Your task to perform on an android device: turn off picture-in-picture Image 0: 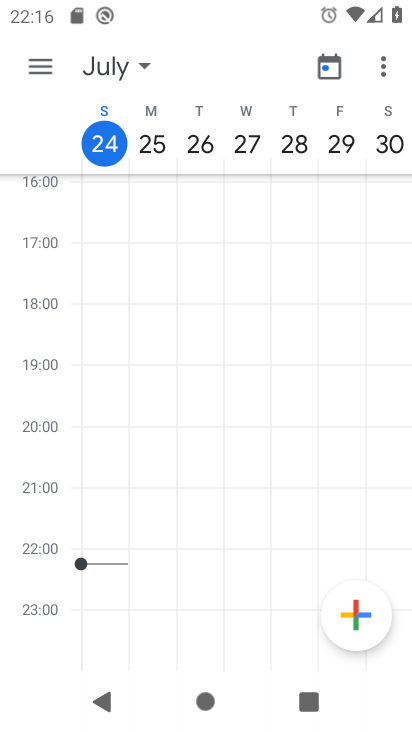
Step 0: press home button
Your task to perform on an android device: turn off picture-in-picture Image 1: 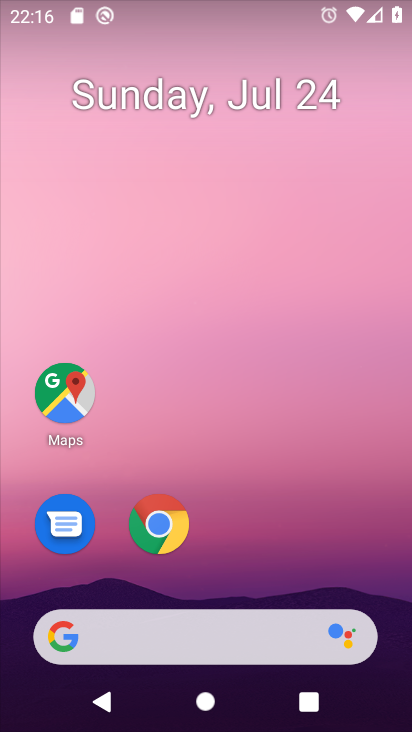
Step 1: click (161, 523)
Your task to perform on an android device: turn off picture-in-picture Image 2: 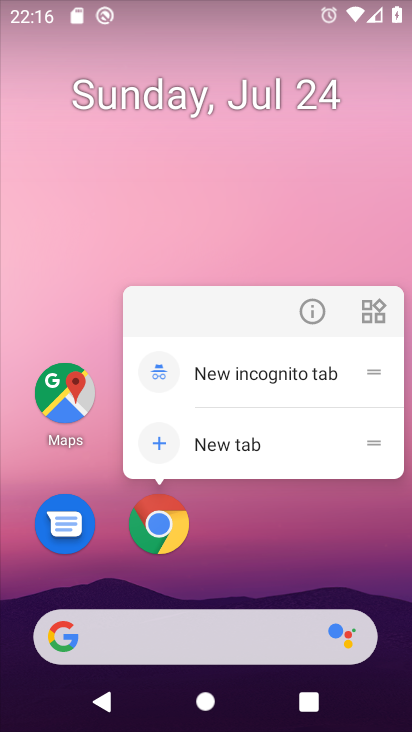
Step 2: click (315, 304)
Your task to perform on an android device: turn off picture-in-picture Image 3: 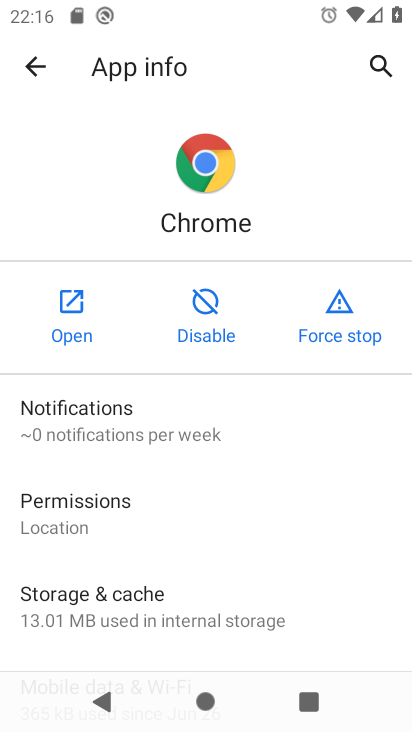
Step 3: drag from (282, 512) to (254, 205)
Your task to perform on an android device: turn off picture-in-picture Image 4: 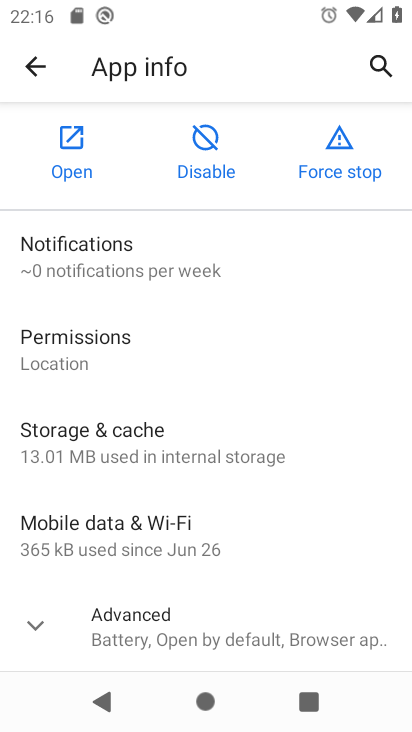
Step 4: click (38, 623)
Your task to perform on an android device: turn off picture-in-picture Image 5: 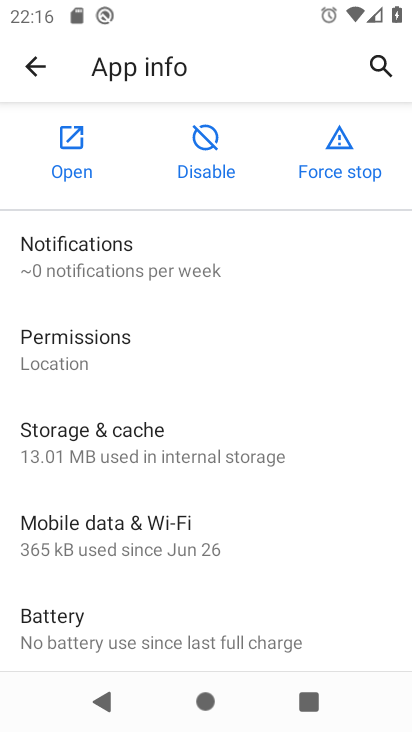
Step 5: drag from (184, 534) to (162, 187)
Your task to perform on an android device: turn off picture-in-picture Image 6: 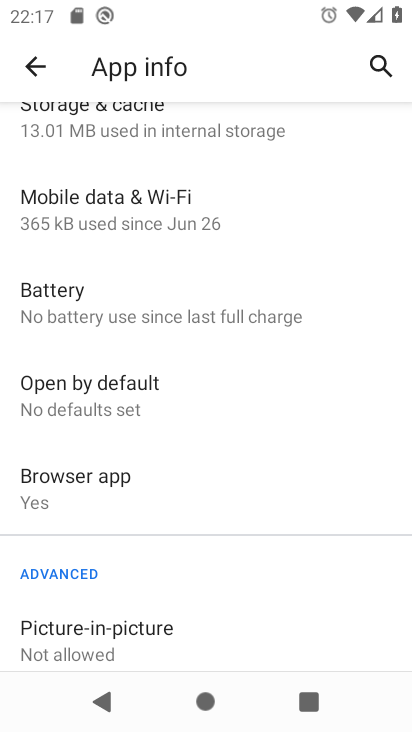
Step 6: drag from (241, 545) to (255, 214)
Your task to perform on an android device: turn off picture-in-picture Image 7: 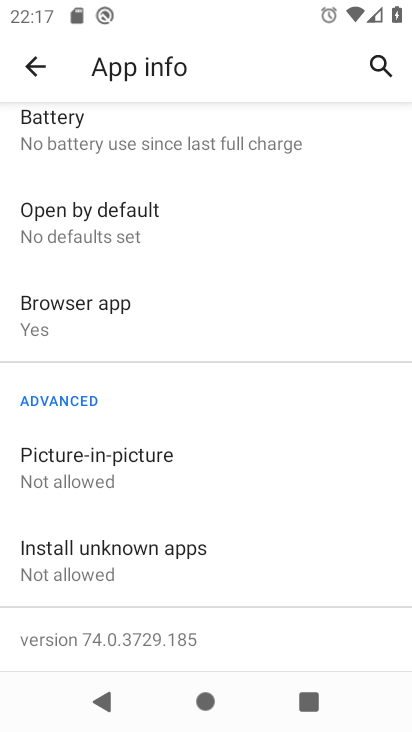
Step 7: click (120, 463)
Your task to perform on an android device: turn off picture-in-picture Image 8: 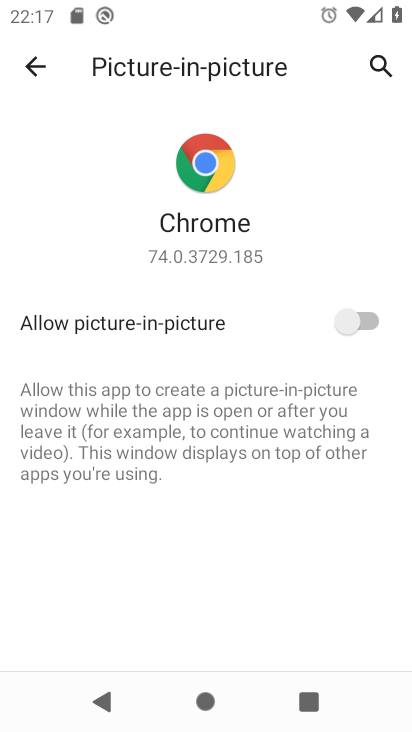
Step 8: task complete